Your task to perform on an android device: What's on my calendar today? Image 0: 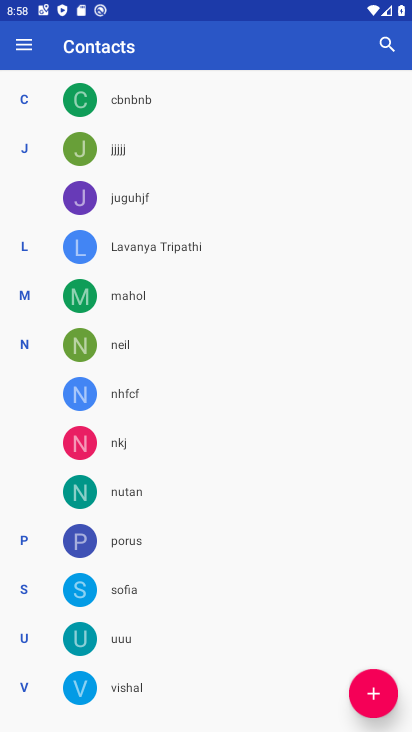
Step 0: press home button
Your task to perform on an android device: What's on my calendar today? Image 1: 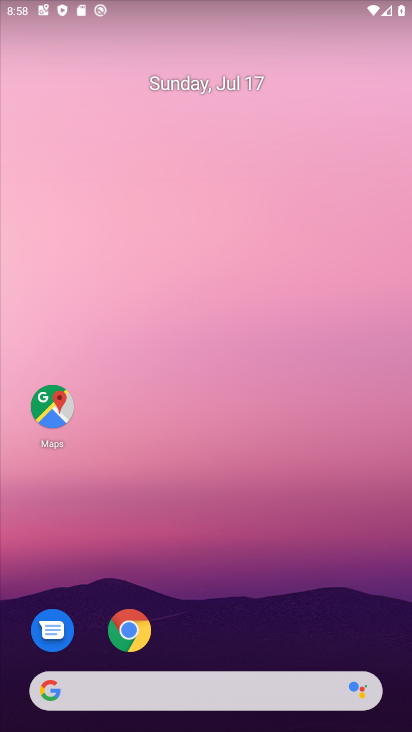
Step 1: drag from (367, 608) to (391, 109)
Your task to perform on an android device: What's on my calendar today? Image 2: 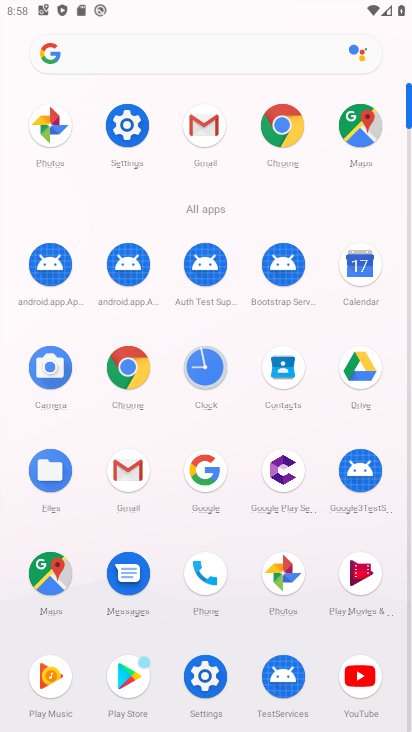
Step 2: click (361, 267)
Your task to perform on an android device: What's on my calendar today? Image 3: 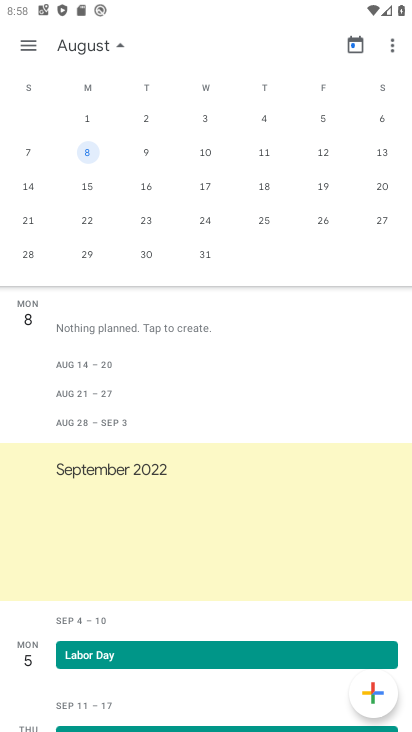
Step 3: drag from (282, 488) to (267, 228)
Your task to perform on an android device: What's on my calendar today? Image 4: 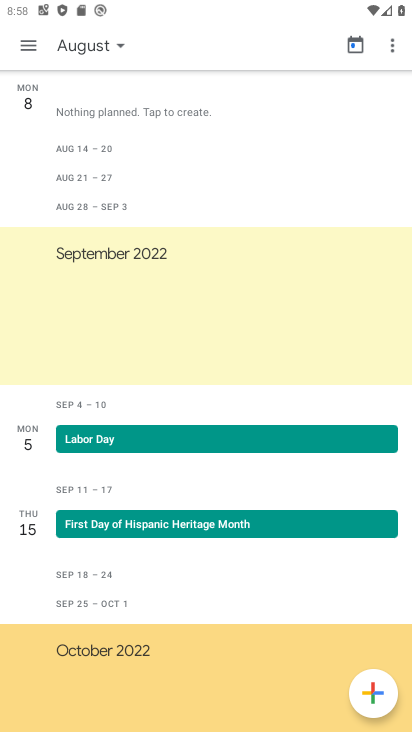
Step 4: drag from (246, 127) to (236, 300)
Your task to perform on an android device: What's on my calendar today? Image 5: 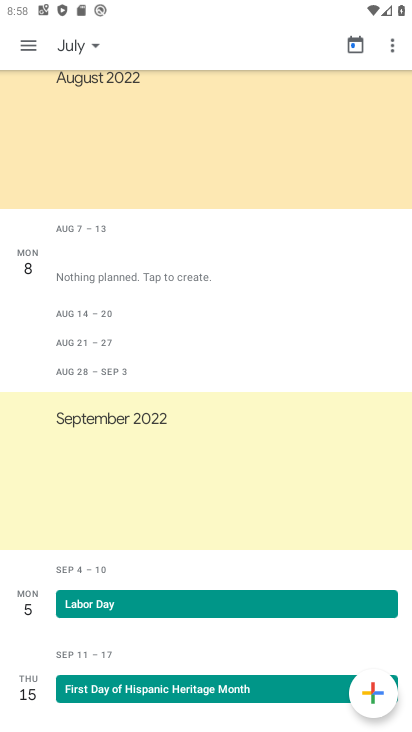
Step 5: drag from (212, 146) to (207, 438)
Your task to perform on an android device: What's on my calendar today? Image 6: 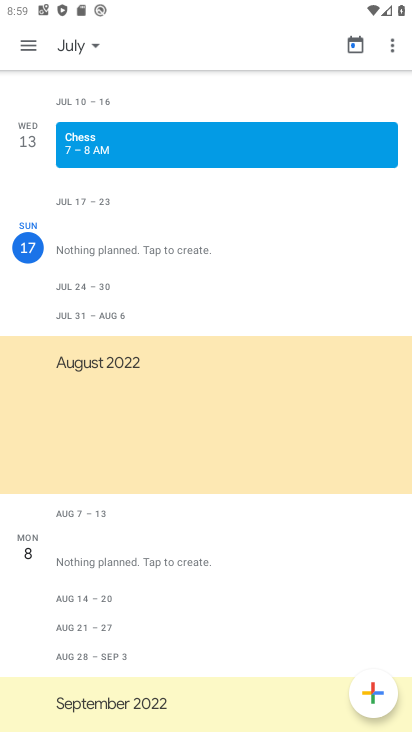
Step 6: click (102, 43)
Your task to perform on an android device: What's on my calendar today? Image 7: 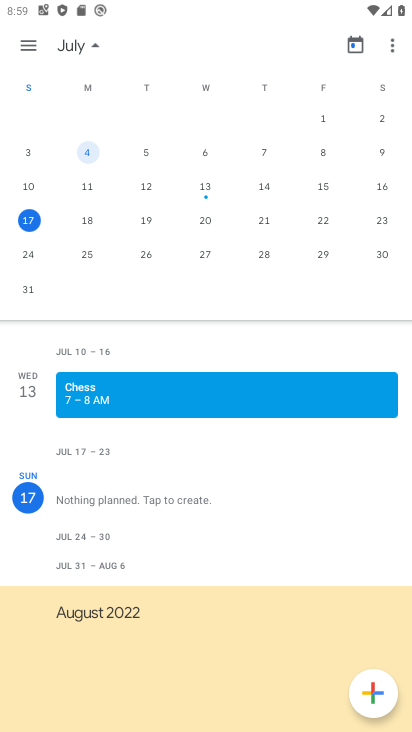
Step 7: click (93, 225)
Your task to perform on an android device: What's on my calendar today? Image 8: 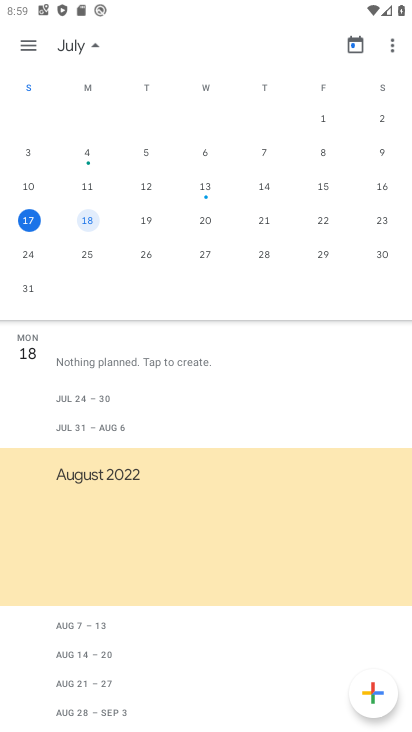
Step 8: task complete